Your task to perform on an android device: Open Wikipedia Image 0: 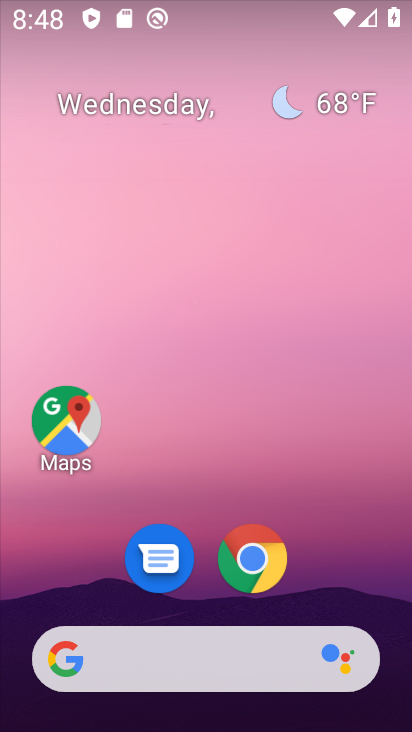
Step 0: drag from (361, 568) to (336, 135)
Your task to perform on an android device: Open Wikipedia Image 1: 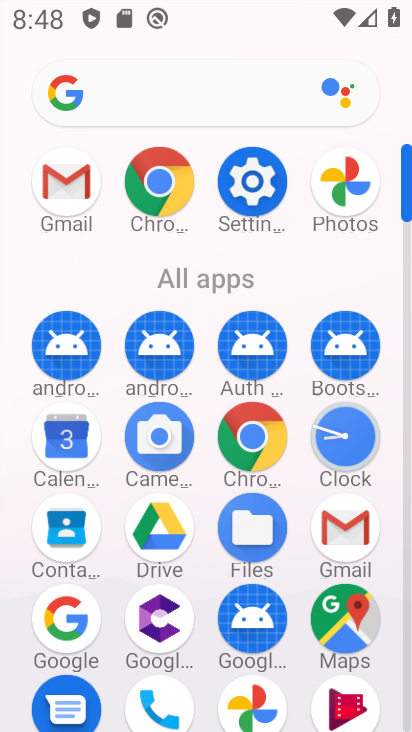
Step 1: click (161, 166)
Your task to perform on an android device: Open Wikipedia Image 2: 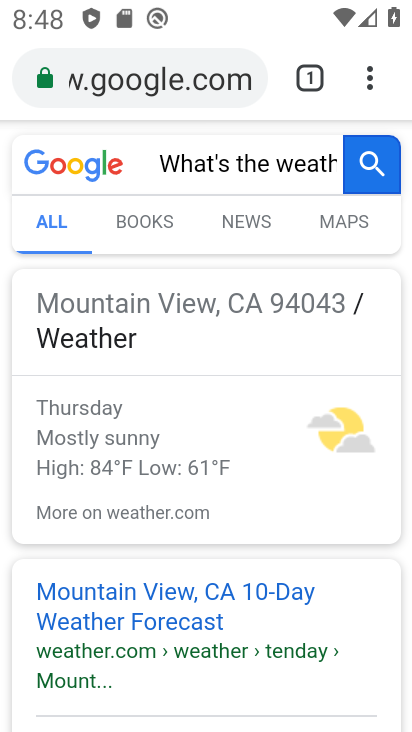
Step 2: click (304, 76)
Your task to perform on an android device: Open Wikipedia Image 3: 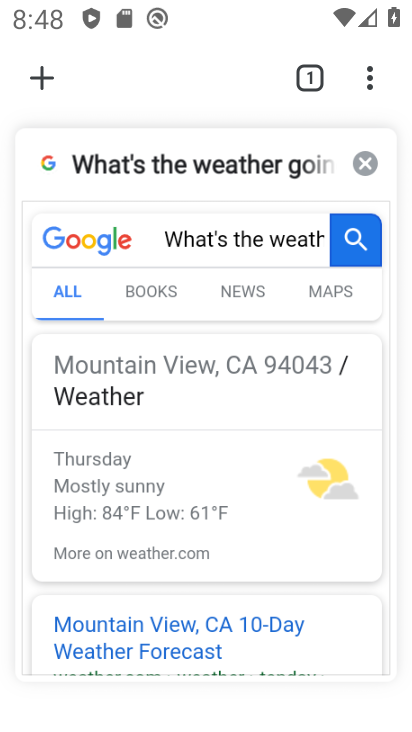
Step 3: click (26, 77)
Your task to perform on an android device: Open Wikipedia Image 4: 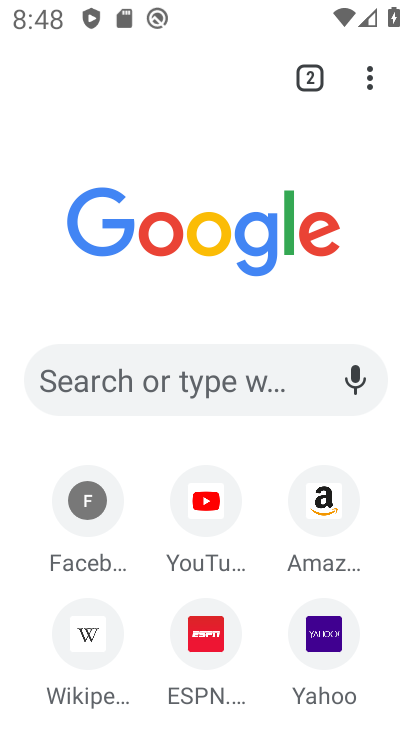
Step 4: click (102, 624)
Your task to perform on an android device: Open Wikipedia Image 5: 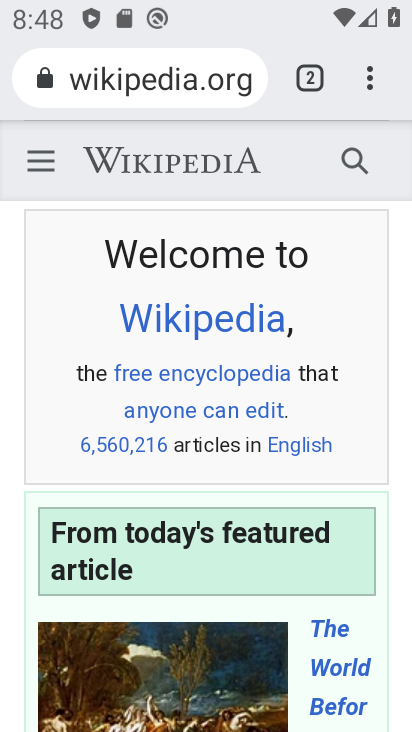
Step 5: task complete